Your task to perform on an android device: delete browsing data in the chrome app Image 0: 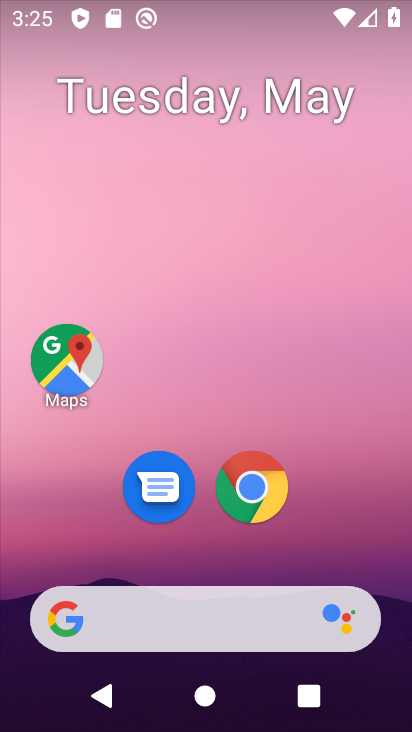
Step 0: click (249, 482)
Your task to perform on an android device: delete browsing data in the chrome app Image 1: 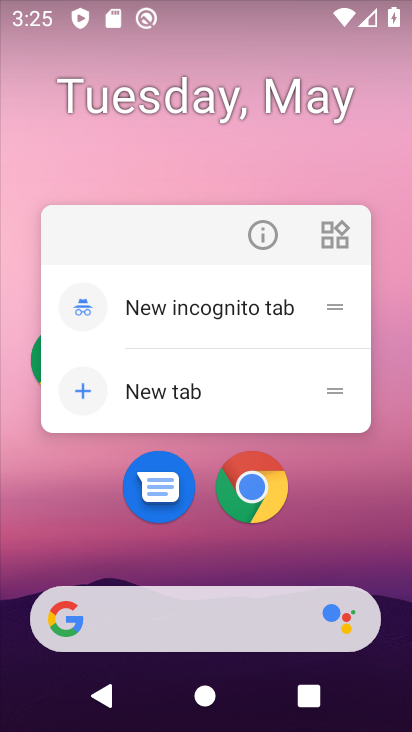
Step 1: drag from (296, 553) to (341, 90)
Your task to perform on an android device: delete browsing data in the chrome app Image 2: 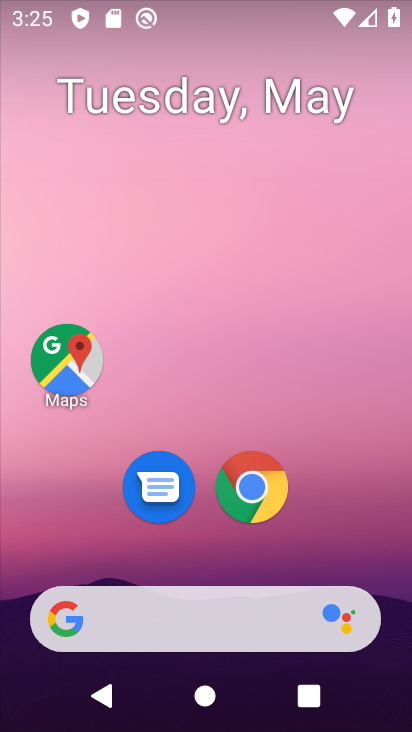
Step 2: drag from (301, 543) to (342, 114)
Your task to perform on an android device: delete browsing data in the chrome app Image 3: 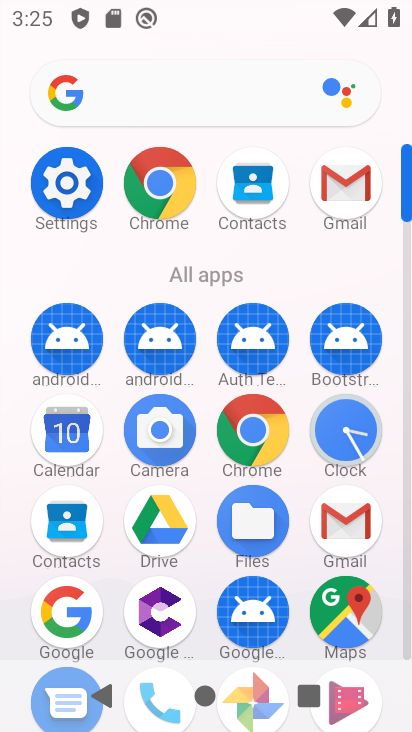
Step 3: click (251, 426)
Your task to perform on an android device: delete browsing data in the chrome app Image 4: 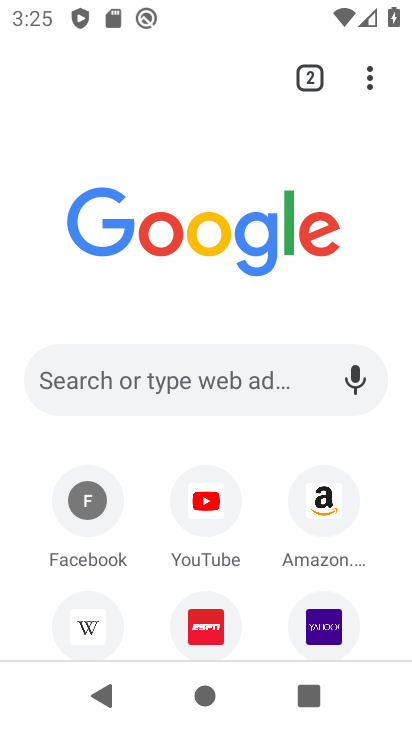
Step 4: click (375, 76)
Your task to perform on an android device: delete browsing data in the chrome app Image 5: 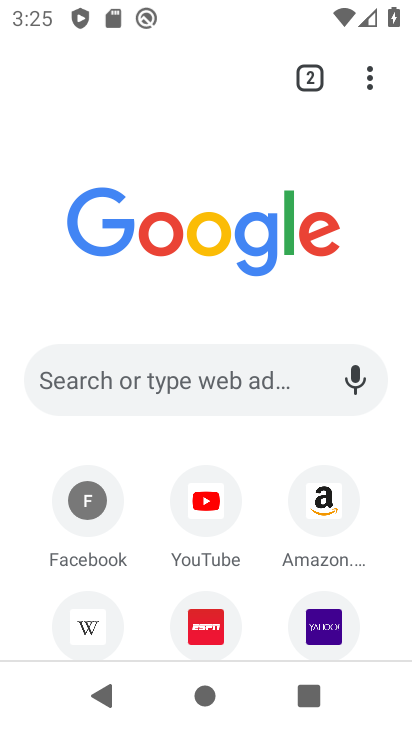
Step 5: click (371, 77)
Your task to perform on an android device: delete browsing data in the chrome app Image 6: 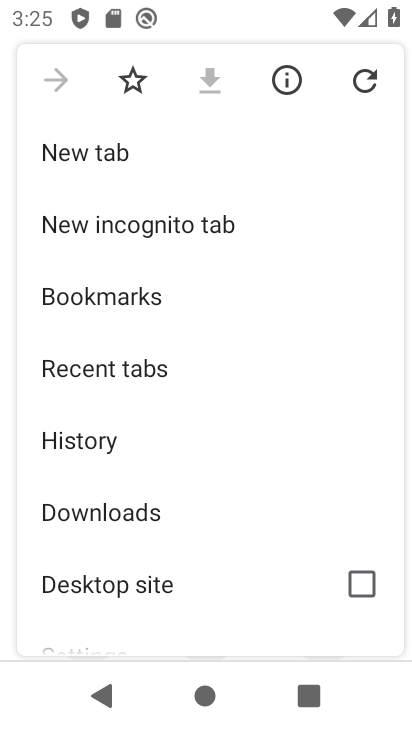
Step 6: click (135, 438)
Your task to perform on an android device: delete browsing data in the chrome app Image 7: 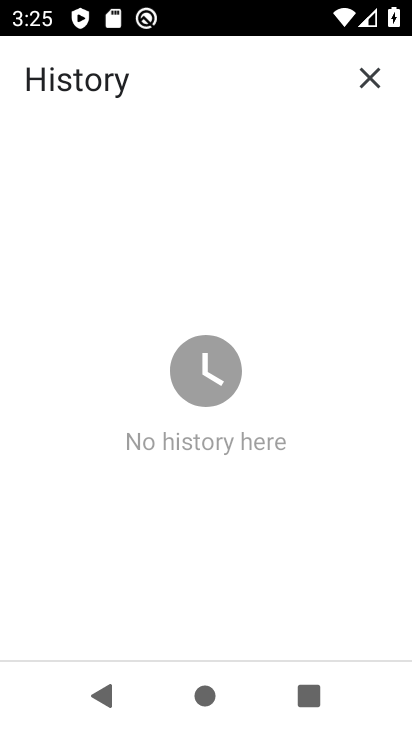
Step 7: task complete